Your task to perform on an android device: turn on priority inbox in the gmail app Image 0: 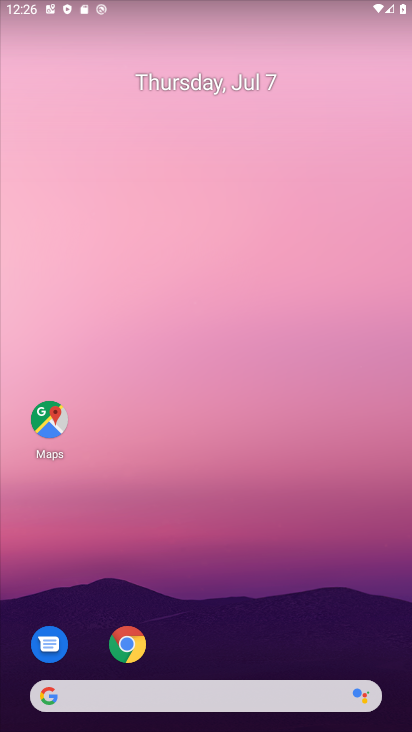
Step 0: drag from (316, 607) to (351, 246)
Your task to perform on an android device: turn on priority inbox in the gmail app Image 1: 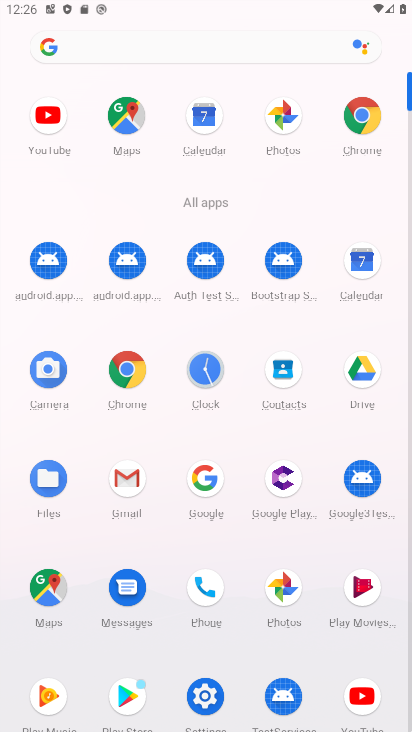
Step 1: click (130, 482)
Your task to perform on an android device: turn on priority inbox in the gmail app Image 2: 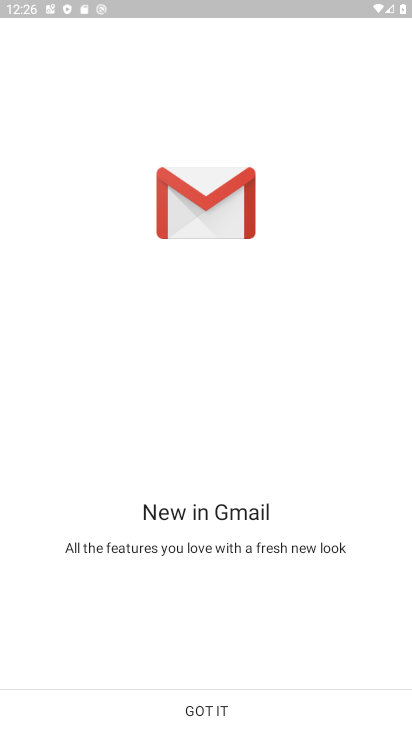
Step 2: click (151, 712)
Your task to perform on an android device: turn on priority inbox in the gmail app Image 3: 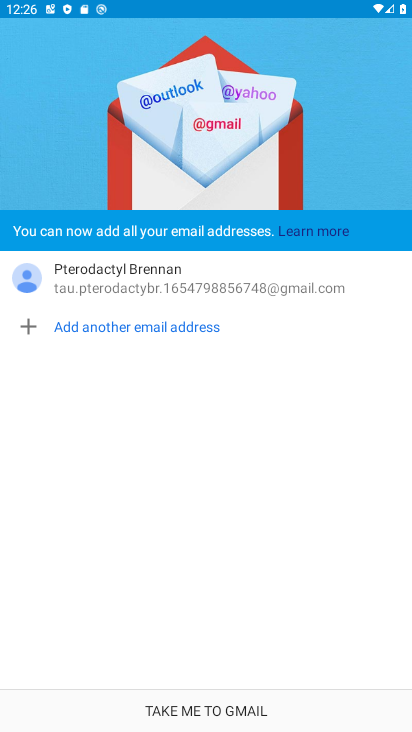
Step 3: click (178, 706)
Your task to perform on an android device: turn on priority inbox in the gmail app Image 4: 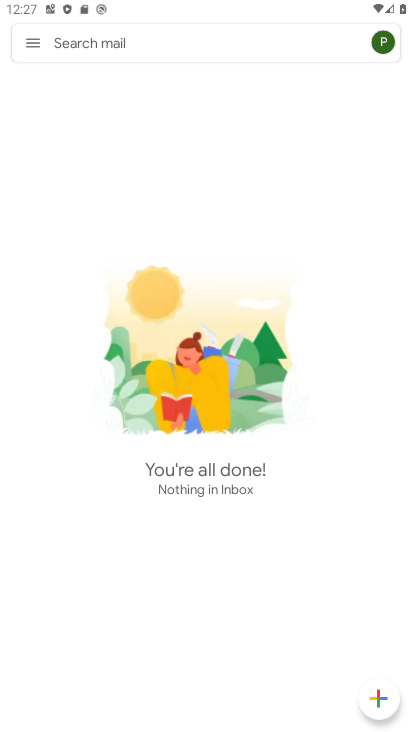
Step 4: click (28, 36)
Your task to perform on an android device: turn on priority inbox in the gmail app Image 5: 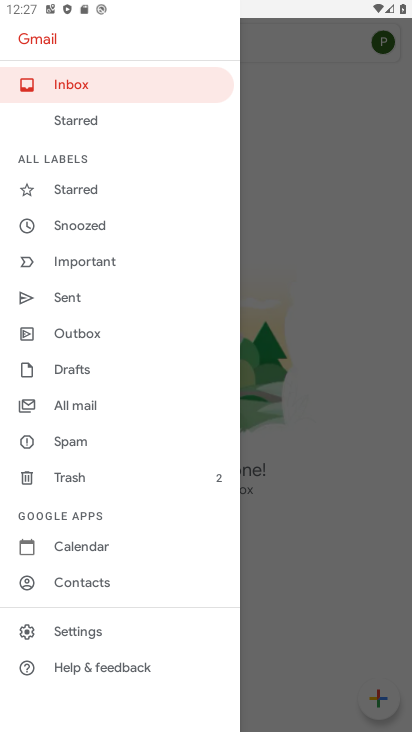
Step 5: click (65, 624)
Your task to perform on an android device: turn on priority inbox in the gmail app Image 6: 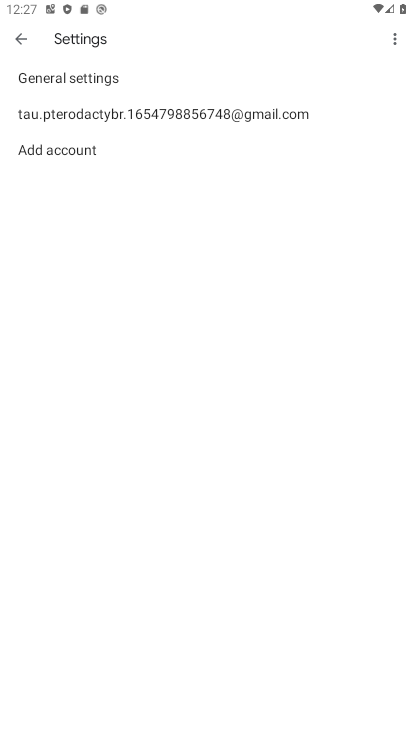
Step 6: click (216, 112)
Your task to perform on an android device: turn on priority inbox in the gmail app Image 7: 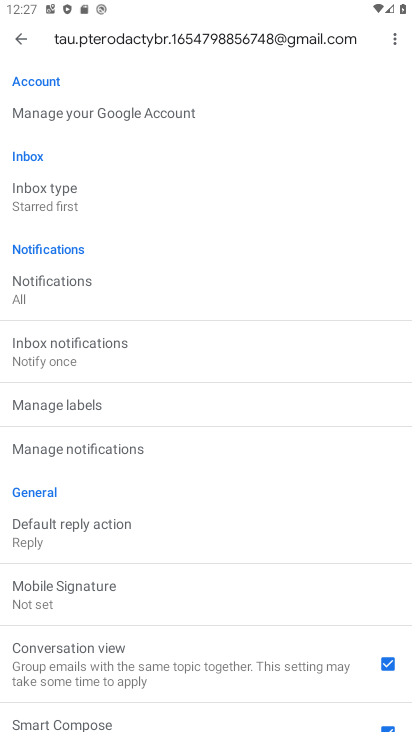
Step 7: click (66, 195)
Your task to perform on an android device: turn on priority inbox in the gmail app Image 8: 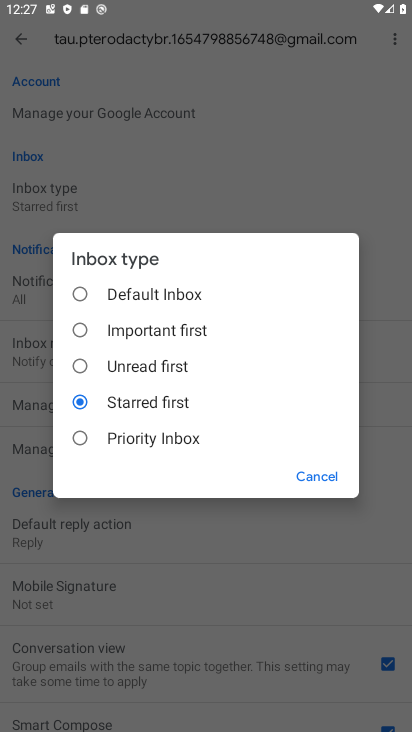
Step 8: click (150, 437)
Your task to perform on an android device: turn on priority inbox in the gmail app Image 9: 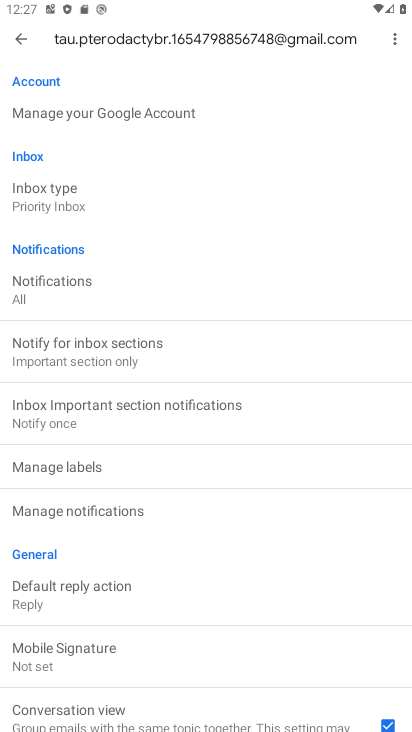
Step 9: task complete